Your task to perform on an android device: change timer sound Image 0: 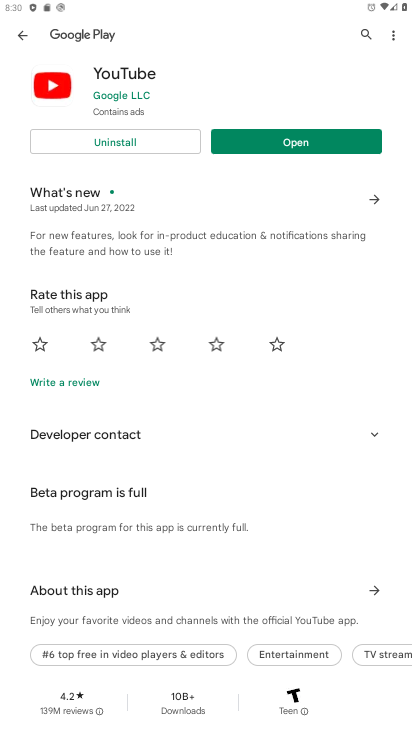
Step 0: press home button
Your task to perform on an android device: change timer sound Image 1: 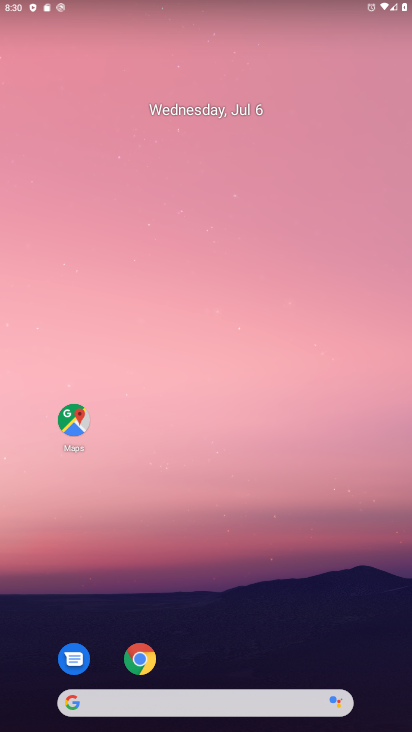
Step 1: drag from (182, 661) to (394, 289)
Your task to perform on an android device: change timer sound Image 2: 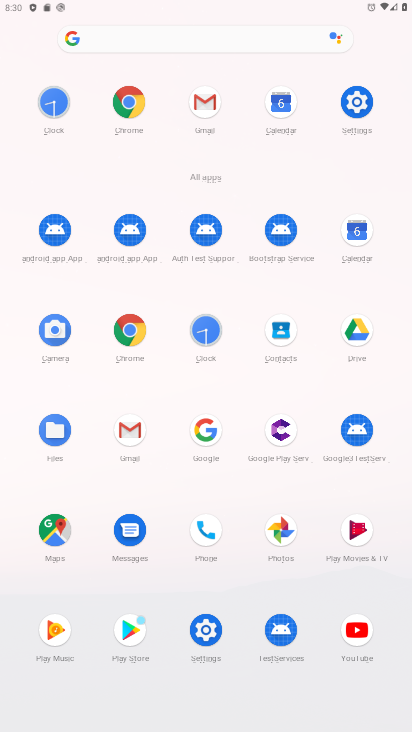
Step 2: click (207, 328)
Your task to perform on an android device: change timer sound Image 3: 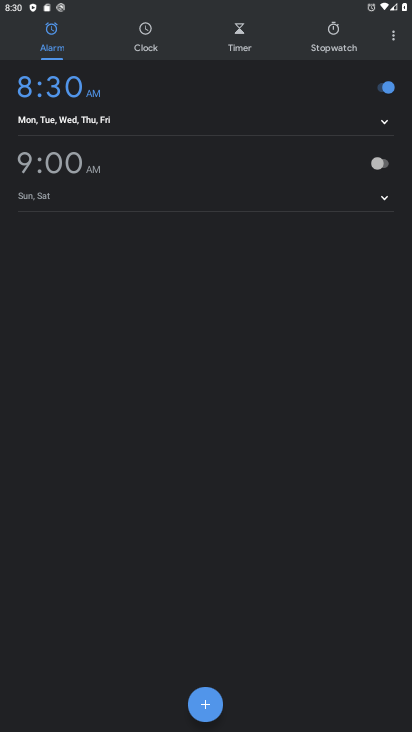
Step 3: click (394, 43)
Your task to perform on an android device: change timer sound Image 4: 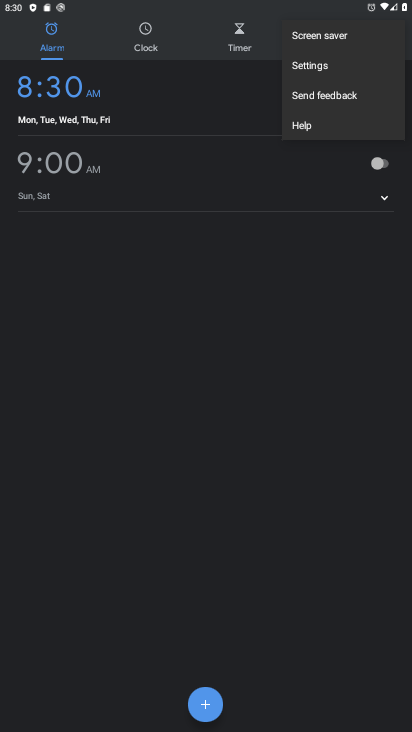
Step 4: click (335, 69)
Your task to perform on an android device: change timer sound Image 5: 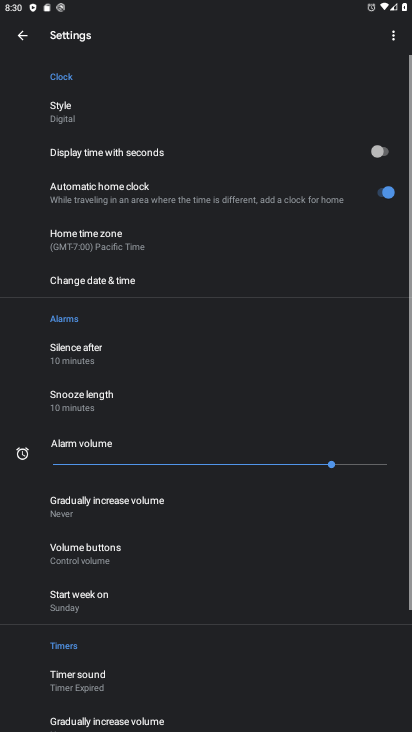
Step 5: drag from (181, 653) to (193, 583)
Your task to perform on an android device: change timer sound Image 6: 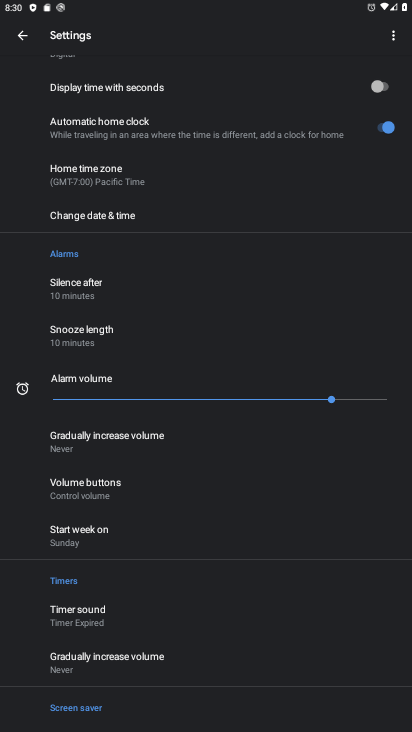
Step 6: drag from (202, 627) to (208, 526)
Your task to perform on an android device: change timer sound Image 7: 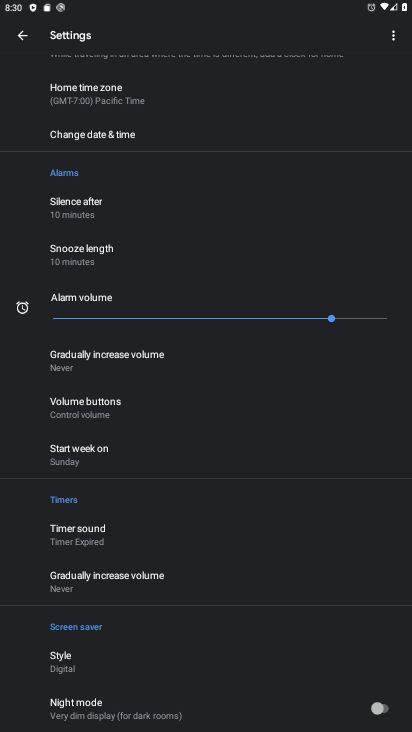
Step 7: click (158, 531)
Your task to perform on an android device: change timer sound Image 8: 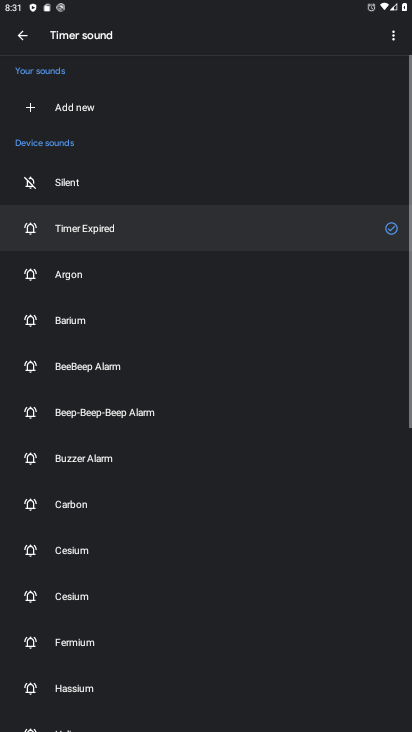
Step 8: click (103, 282)
Your task to perform on an android device: change timer sound Image 9: 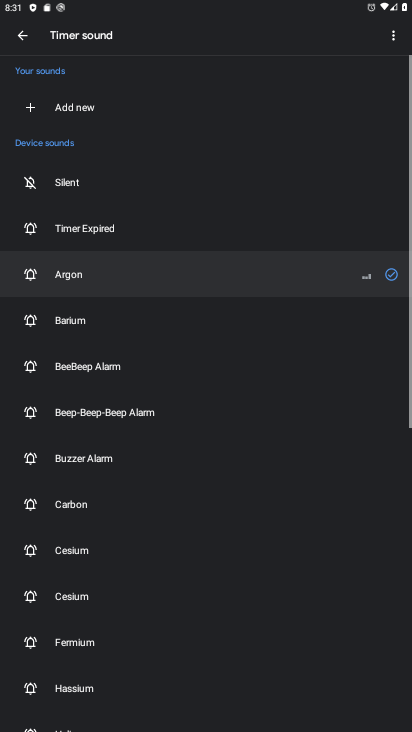
Step 9: task complete